Your task to perform on an android device: Go to sound settings Image 0: 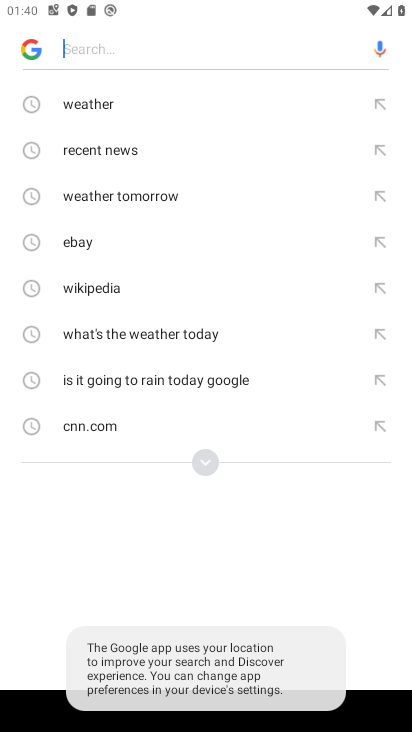
Step 0: press home button
Your task to perform on an android device: Go to sound settings Image 1: 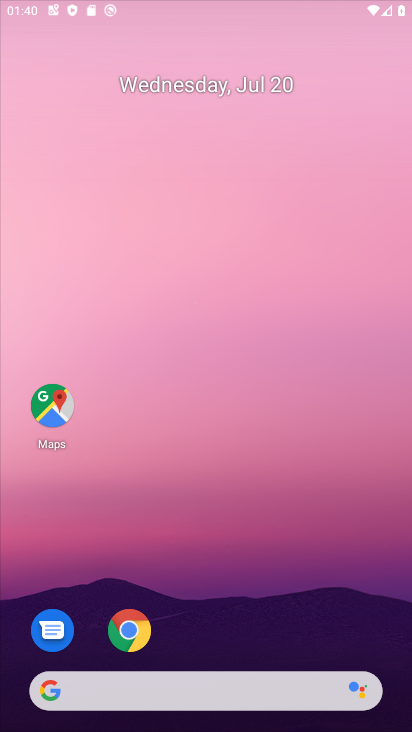
Step 1: drag from (273, 493) to (261, 69)
Your task to perform on an android device: Go to sound settings Image 2: 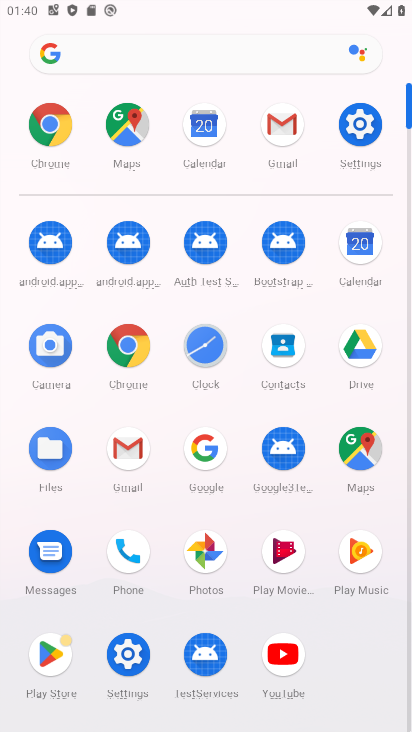
Step 2: click (359, 111)
Your task to perform on an android device: Go to sound settings Image 3: 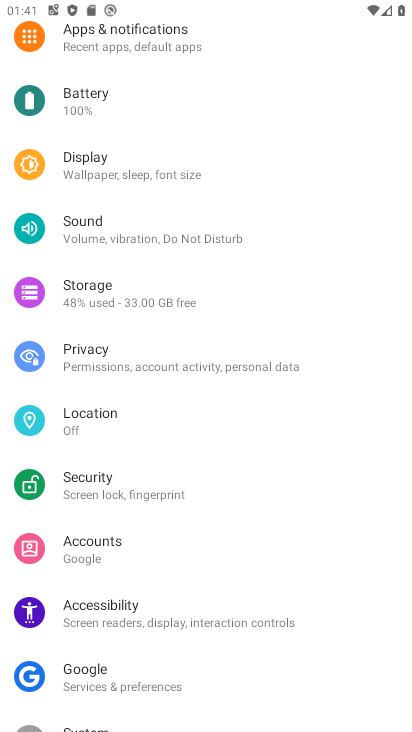
Step 3: click (114, 224)
Your task to perform on an android device: Go to sound settings Image 4: 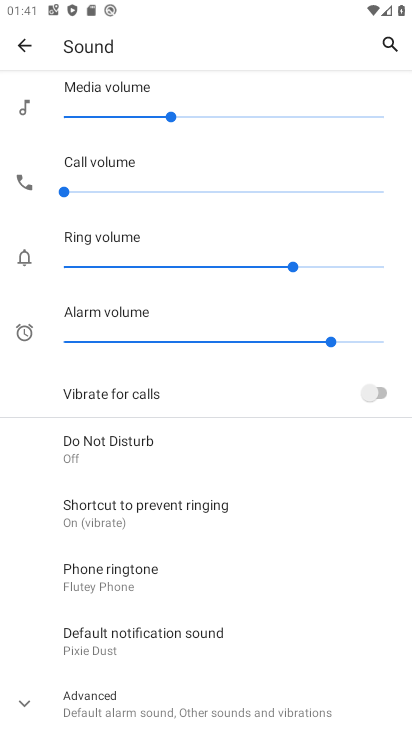
Step 4: task complete